Your task to perform on an android device: see creations saved in the google photos Image 0: 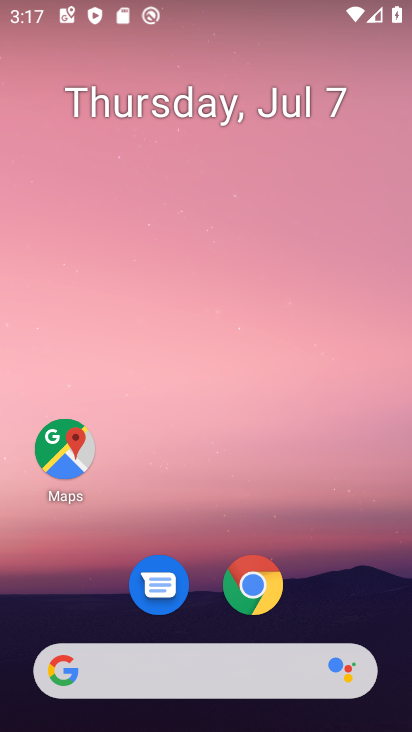
Step 0: drag from (309, 497) to (313, 19)
Your task to perform on an android device: see creations saved in the google photos Image 1: 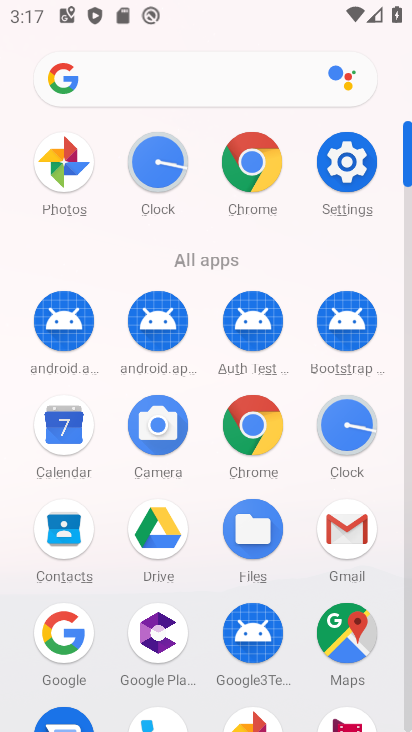
Step 1: click (61, 151)
Your task to perform on an android device: see creations saved in the google photos Image 2: 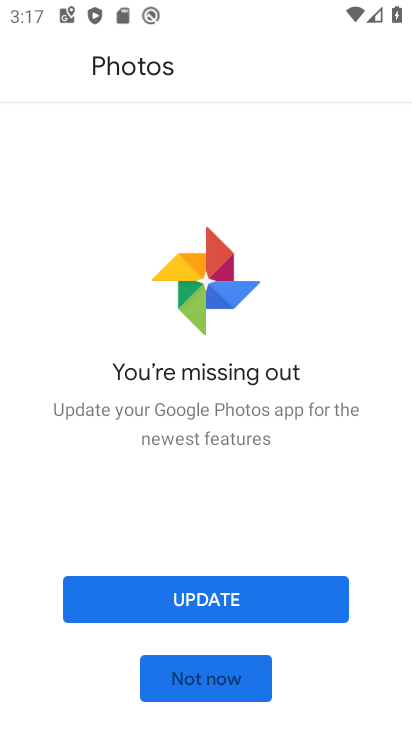
Step 2: click (231, 688)
Your task to perform on an android device: see creations saved in the google photos Image 3: 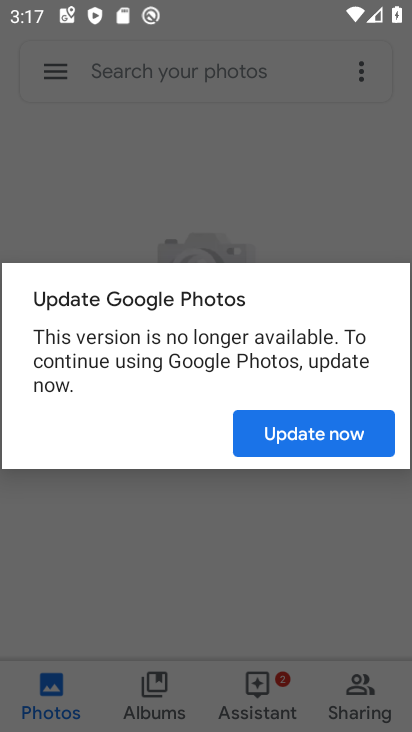
Step 3: click (356, 438)
Your task to perform on an android device: see creations saved in the google photos Image 4: 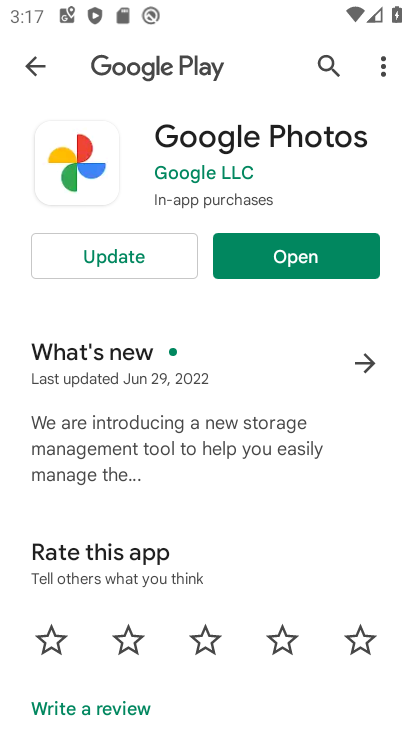
Step 4: click (295, 258)
Your task to perform on an android device: see creations saved in the google photos Image 5: 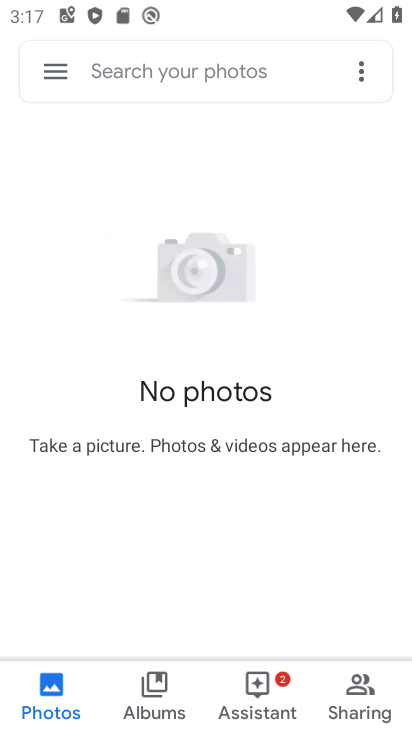
Step 5: click (170, 64)
Your task to perform on an android device: see creations saved in the google photos Image 6: 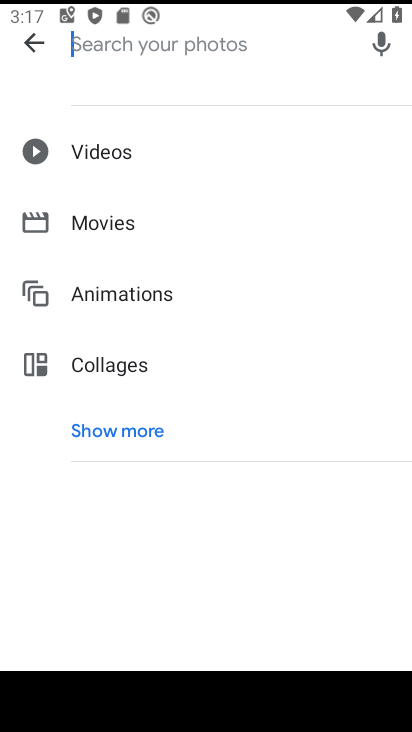
Step 6: click (115, 427)
Your task to perform on an android device: see creations saved in the google photos Image 7: 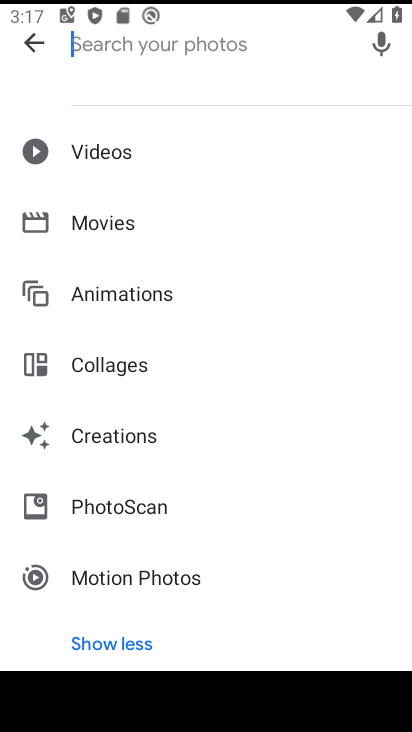
Step 7: click (126, 426)
Your task to perform on an android device: see creations saved in the google photos Image 8: 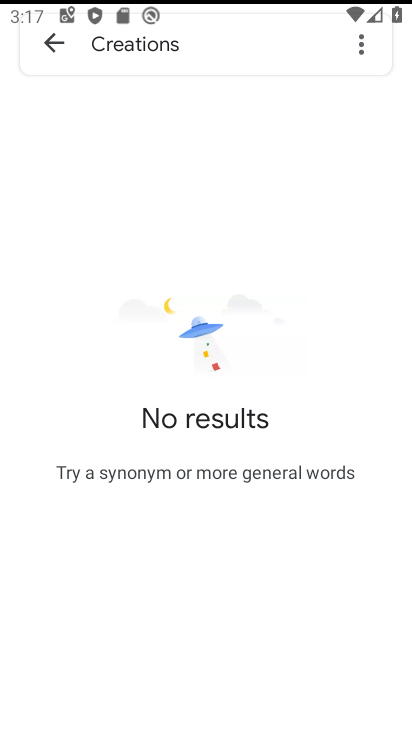
Step 8: task complete